Your task to perform on an android device: turn off notifications in google photos Image 0: 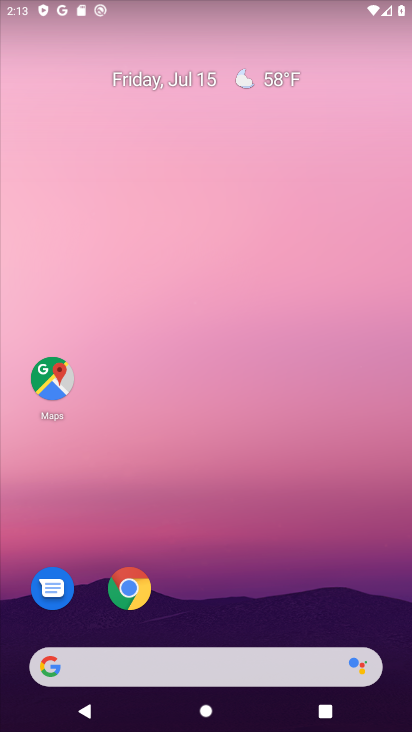
Step 0: drag from (332, 605) to (298, 211)
Your task to perform on an android device: turn off notifications in google photos Image 1: 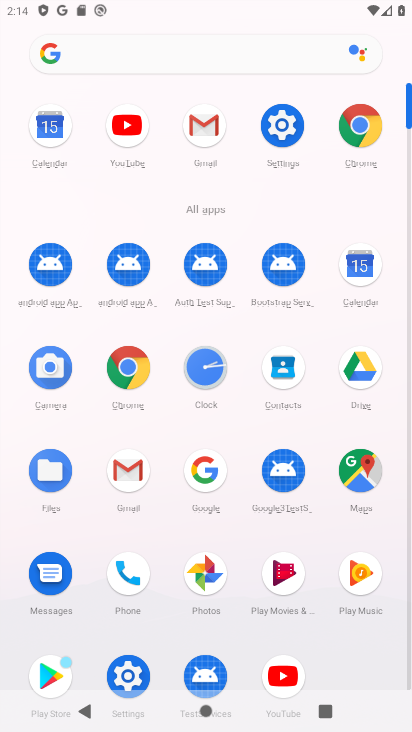
Step 1: click (194, 581)
Your task to perform on an android device: turn off notifications in google photos Image 2: 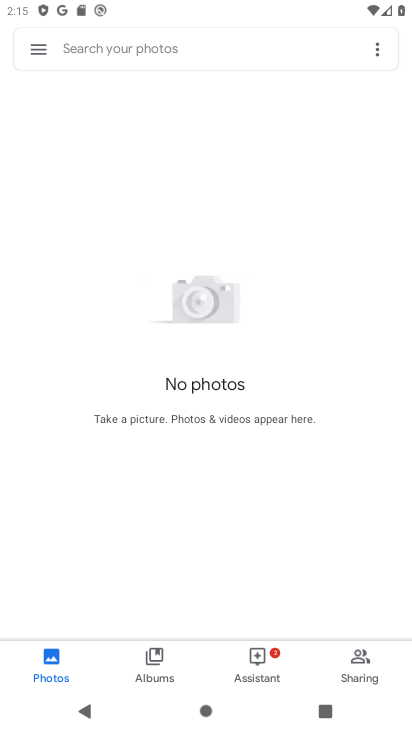
Step 2: task complete